Your task to perform on an android device: Go to Amazon Image 0: 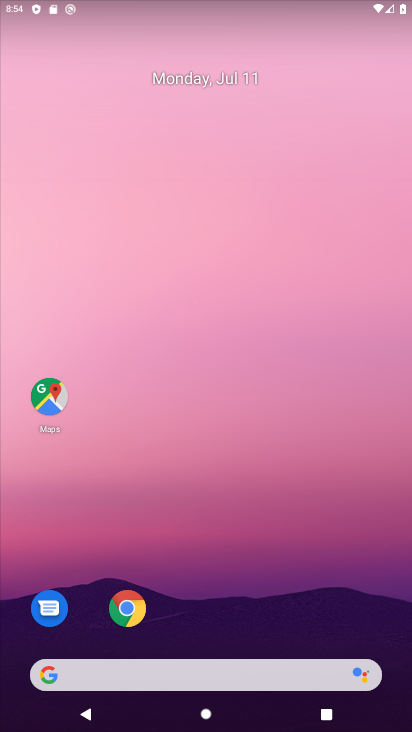
Step 0: click (162, 150)
Your task to perform on an android device: Go to Amazon Image 1: 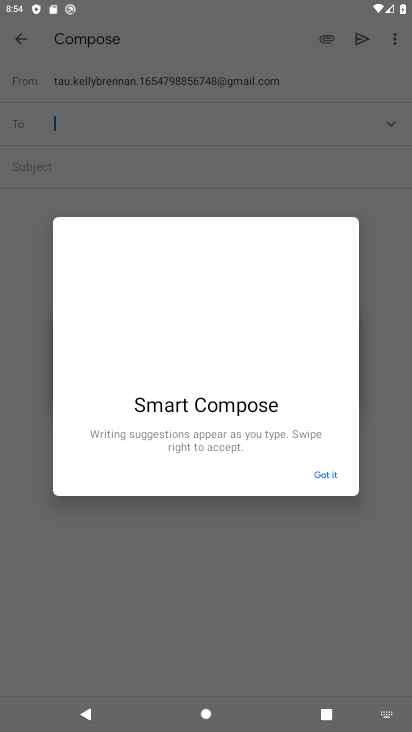
Step 1: press home button
Your task to perform on an android device: Go to Amazon Image 2: 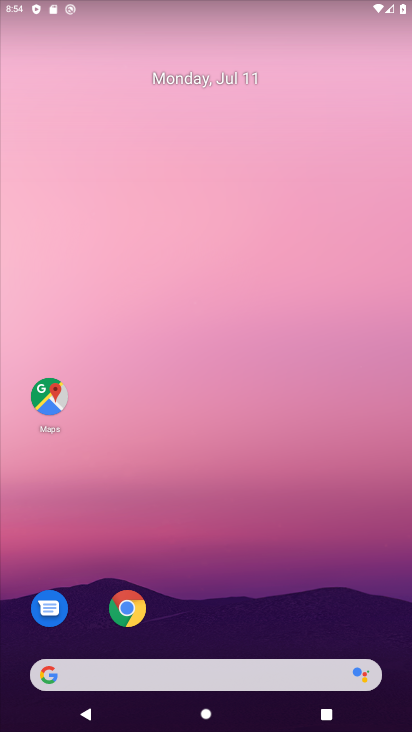
Step 2: drag from (191, 684) to (190, 283)
Your task to perform on an android device: Go to Amazon Image 3: 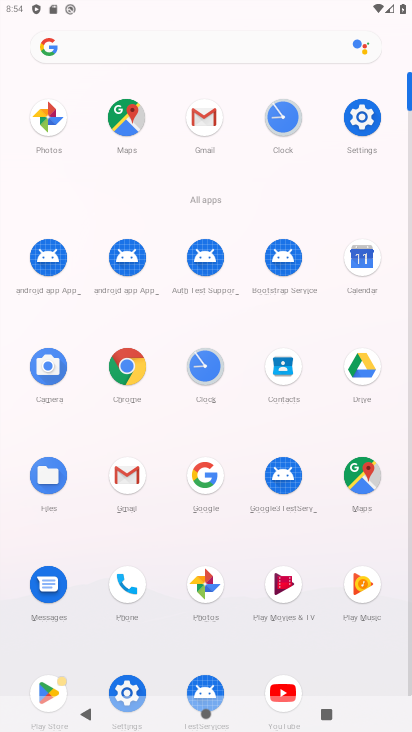
Step 3: click (136, 383)
Your task to perform on an android device: Go to Amazon Image 4: 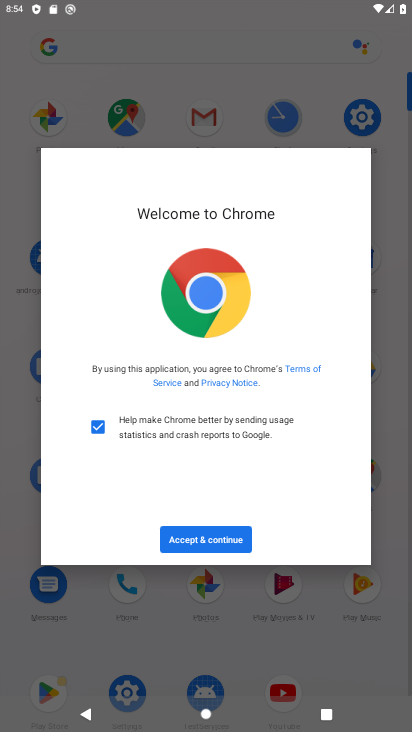
Step 4: click (205, 533)
Your task to perform on an android device: Go to Amazon Image 5: 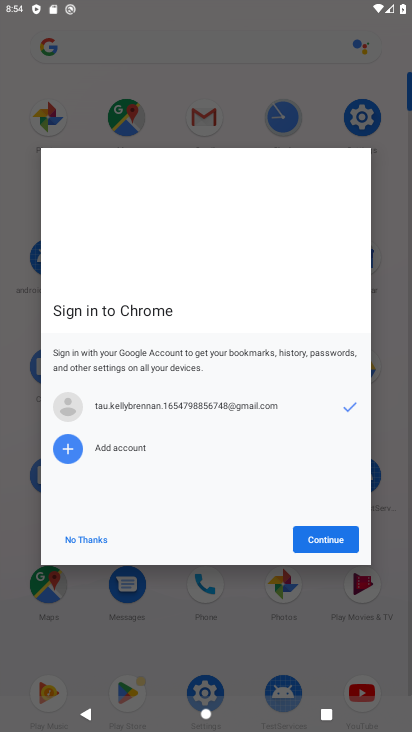
Step 5: click (310, 532)
Your task to perform on an android device: Go to Amazon Image 6: 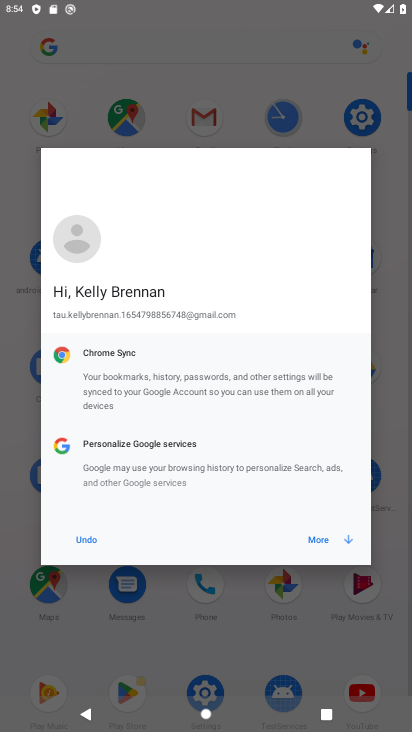
Step 6: click (321, 542)
Your task to perform on an android device: Go to Amazon Image 7: 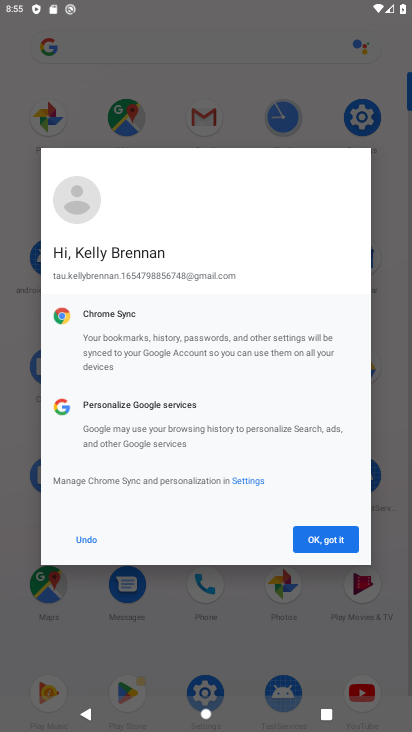
Step 7: click (323, 543)
Your task to perform on an android device: Go to Amazon Image 8: 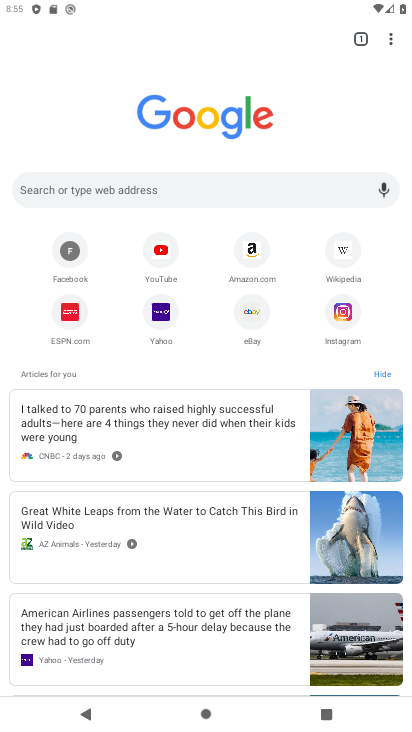
Step 8: click (247, 256)
Your task to perform on an android device: Go to Amazon Image 9: 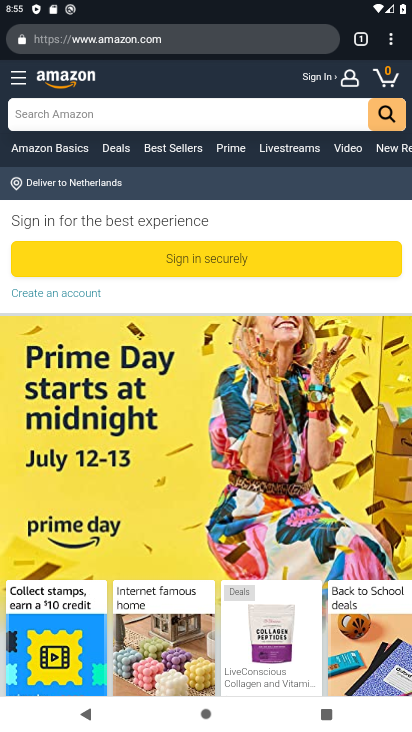
Step 9: task complete